Your task to perform on an android device: open device folders in google photos Image 0: 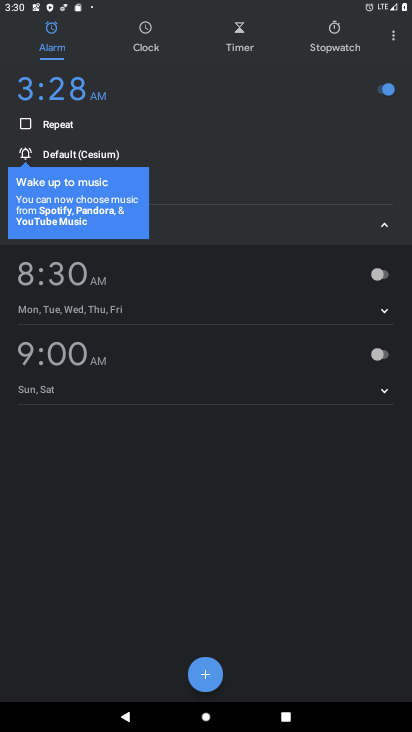
Step 0: press home button
Your task to perform on an android device: open device folders in google photos Image 1: 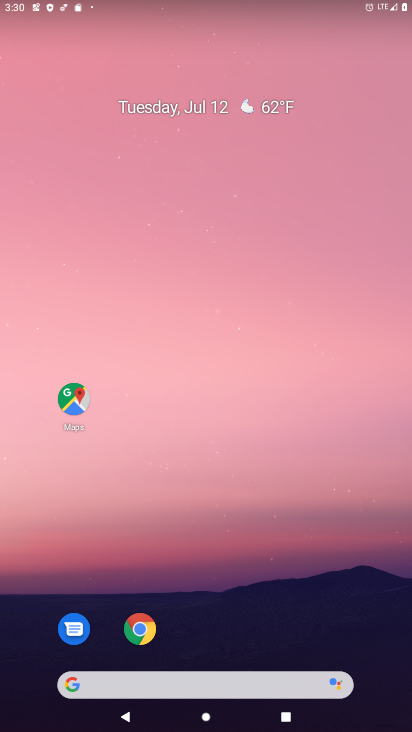
Step 1: drag from (206, 658) to (85, 47)
Your task to perform on an android device: open device folders in google photos Image 2: 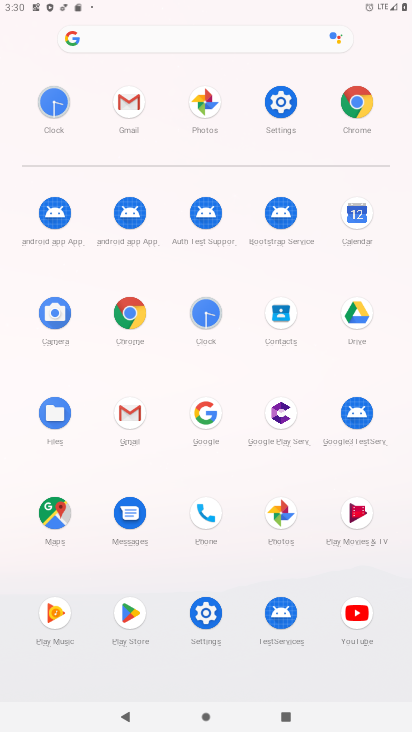
Step 2: click (281, 518)
Your task to perform on an android device: open device folders in google photos Image 3: 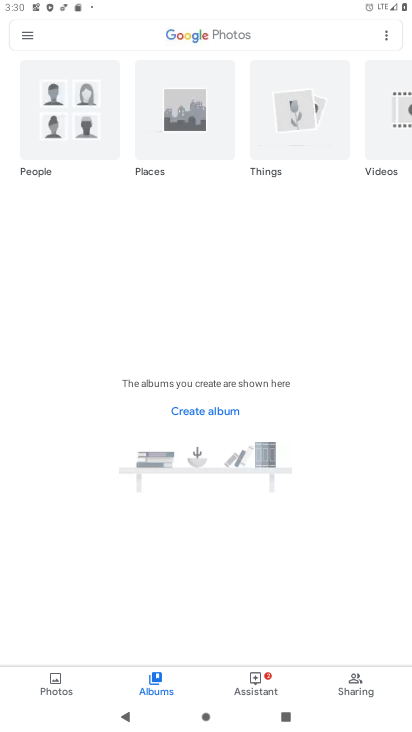
Step 3: click (19, 36)
Your task to perform on an android device: open device folders in google photos Image 4: 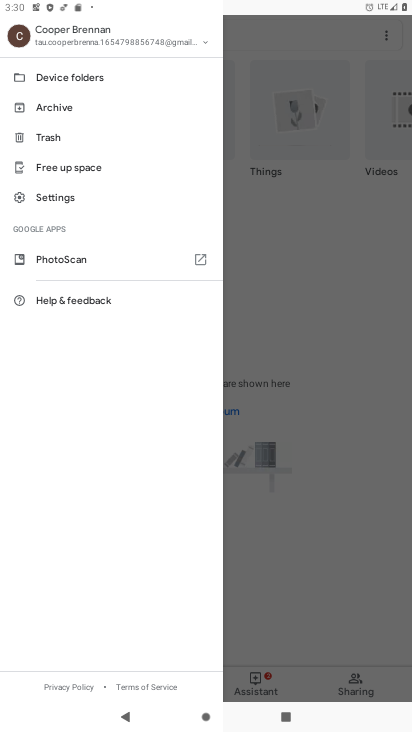
Step 4: click (24, 37)
Your task to perform on an android device: open device folders in google photos Image 5: 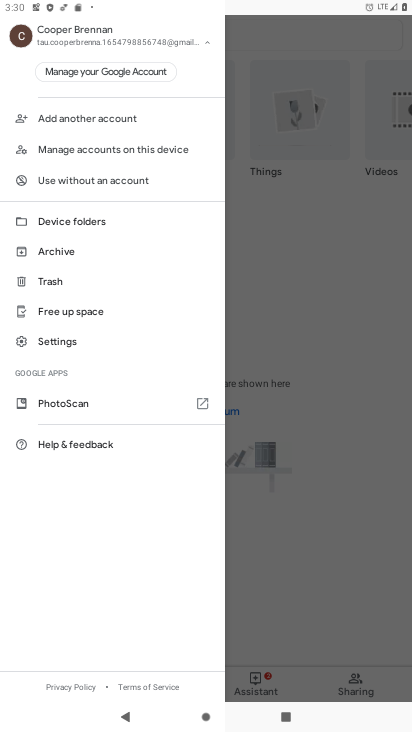
Step 5: click (68, 213)
Your task to perform on an android device: open device folders in google photos Image 6: 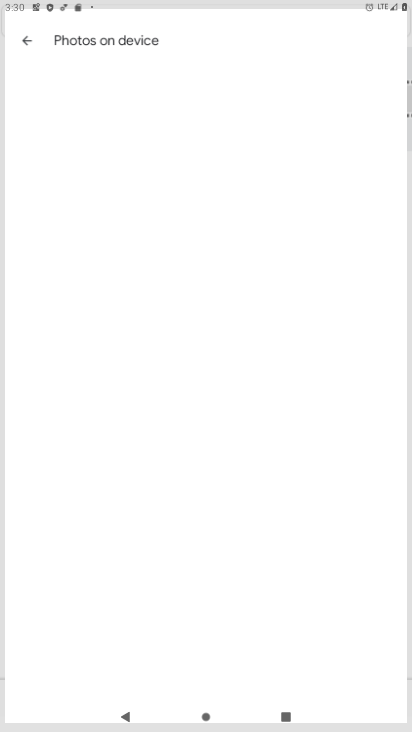
Step 6: task complete